Your task to perform on an android device: clear all cookies in the chrome app Image 0: 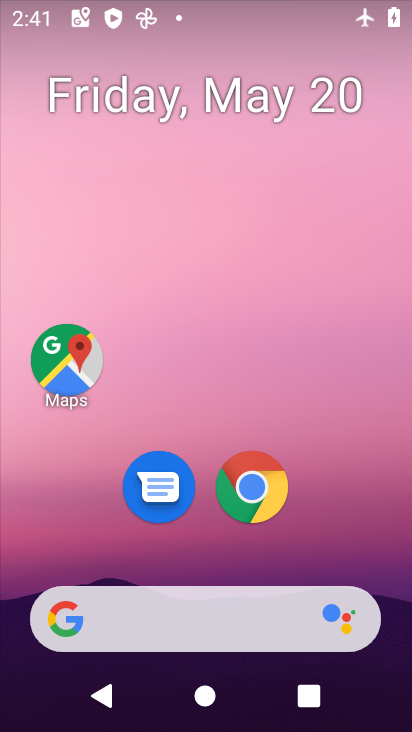
Step 0: drag from (301, 490) to (250, 109)
Your task to perform on an android device: clear all cookies in the chrome app Image 1: 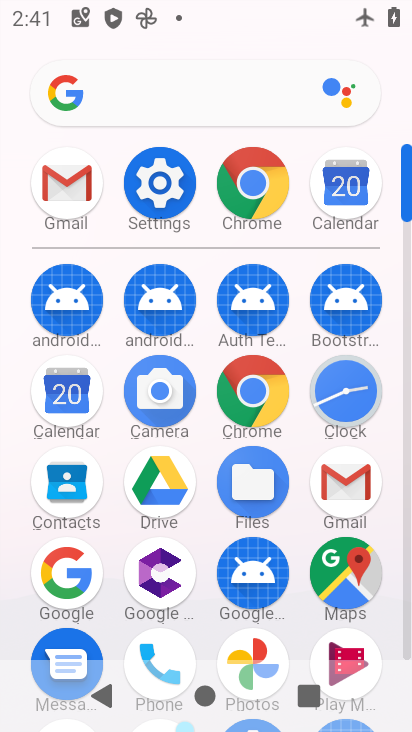
Step 1: click (267, 198)
Your task to perform on an android device: clear all cookies in the chrome app Image 2: 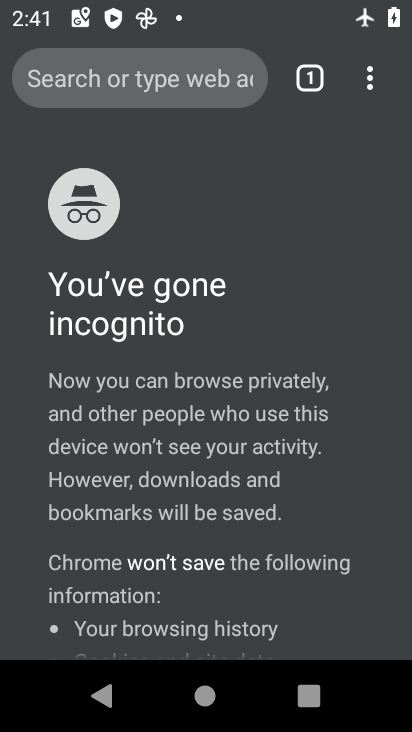
Step 2: task complete